Your task to perform on an android device: Open Youtube and go to "Your channel" Image 0: 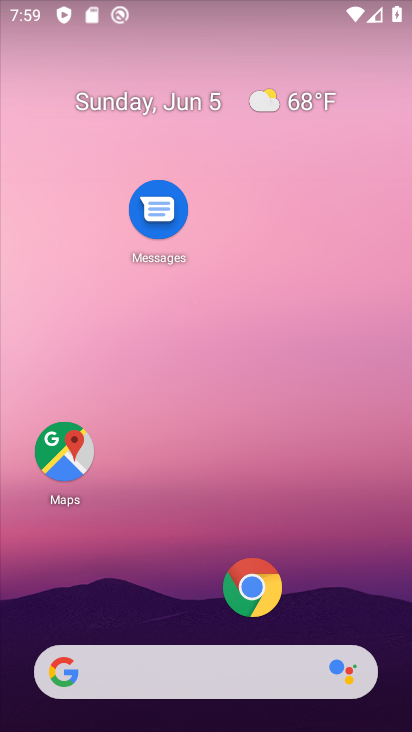
Step 0: press home button
Your task to perform on an android device: Open Youtube and go to "Your channel" Image 1: 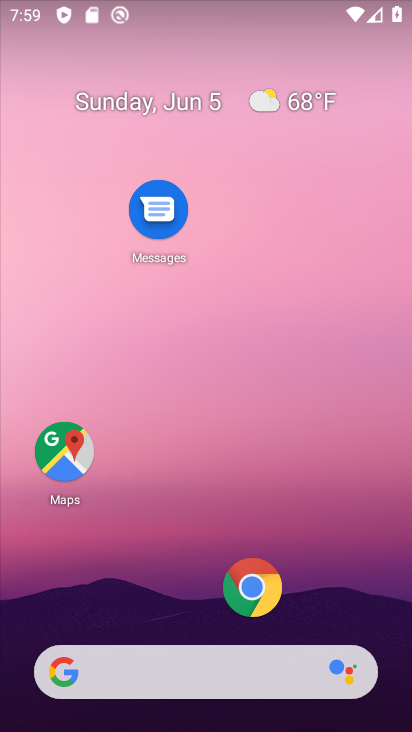
Step 1: drag from (340, 625) to (366, 51)
Your task to perform on an android device: Open Youtube and go to "Your channel" Image 2: 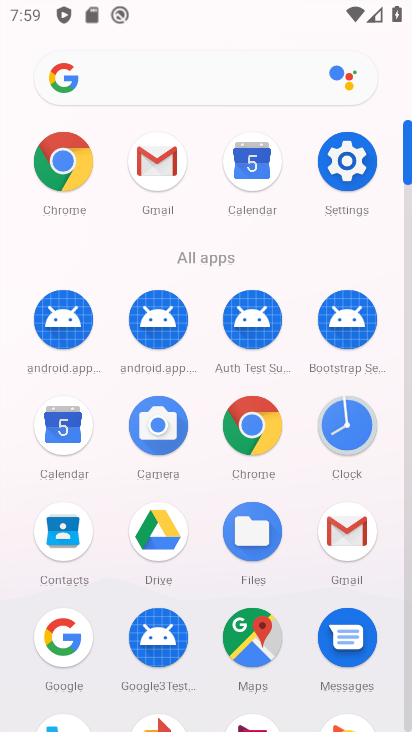
Step 2: drag from (299, 588) to (313, 86)
Your task to perform on an android device: Open Youtube and go to "Your channel" Image 3: 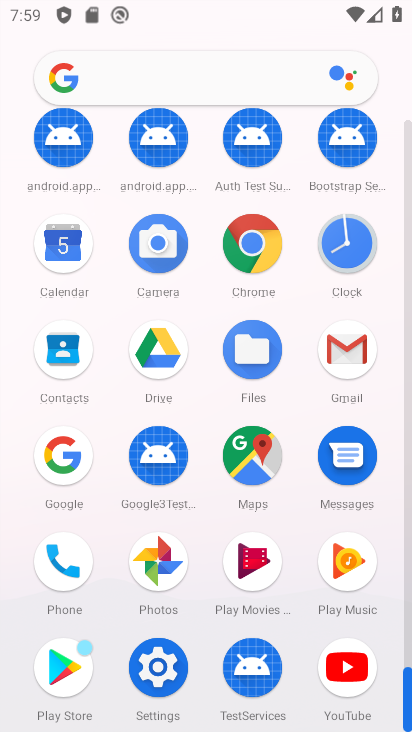
Step 3: click (344, 661)
Your task to perform on an android device: Open Youtube and go to "Your channel" Image 4: 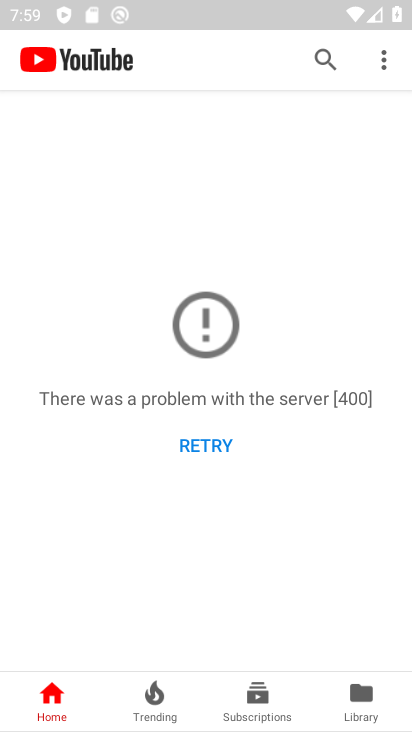
Step 4: click (209, 450)
Your task to perform on an android device: Open Youtube and go to "Your channel" Image 5: 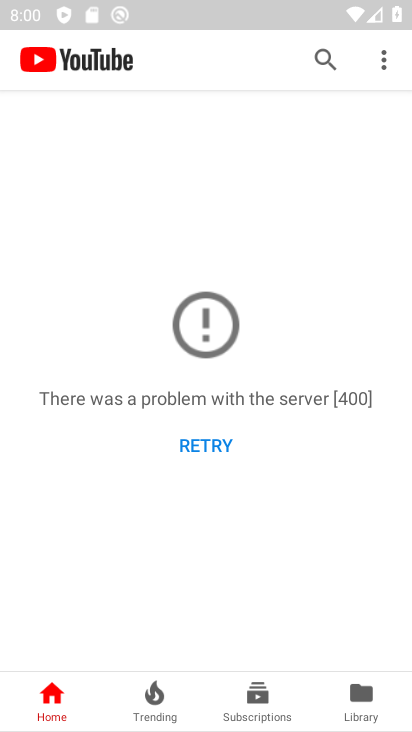
Step 5: click (380, 53)
Your task to perform on an android device: Open Youtube and go to "Your channel" Image 6: 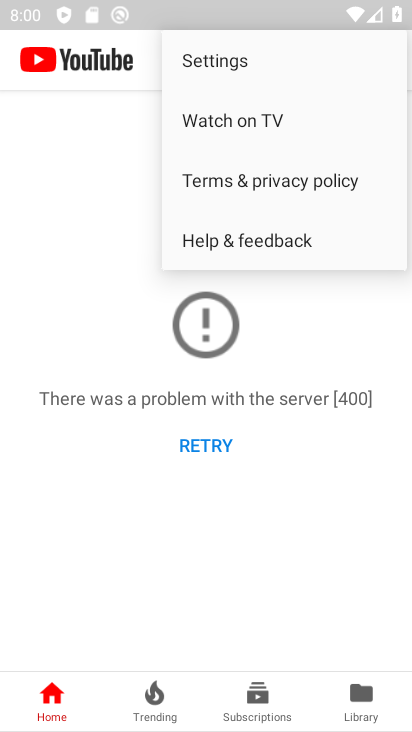
Step 6: task complete